Your task to perform on an android device: turn off javascript in the chrome app Image 0: 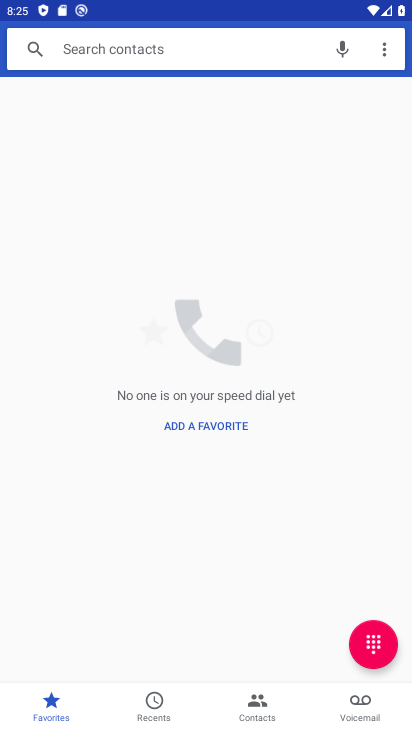
Step 0: press home button
Your task to perform on an android device: turn off javascript in the chrome app Image 1: 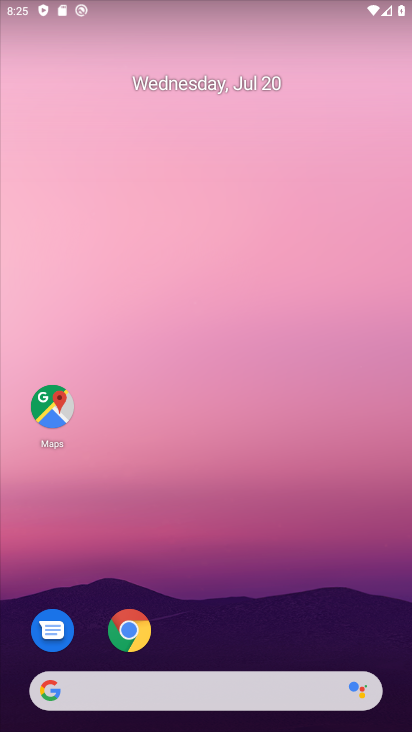
Step 1: click (137, 632)
Your task to perform on an android device: turn off javascript in the chrome app Image 2: 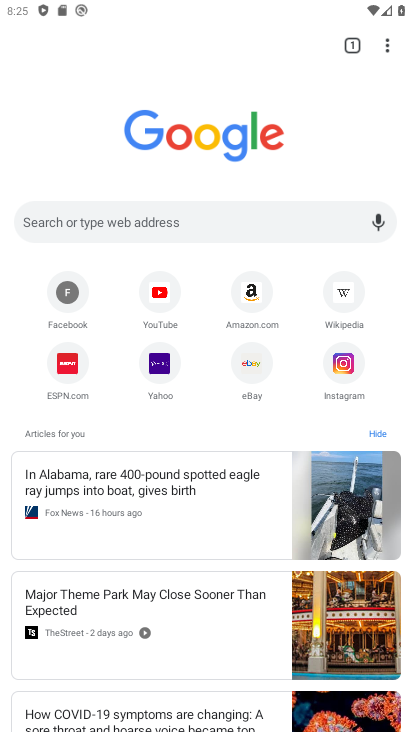
Step 2: click (392, 41)
Your task to perform on an android device: turn off javascript in the chrome app Image 3: 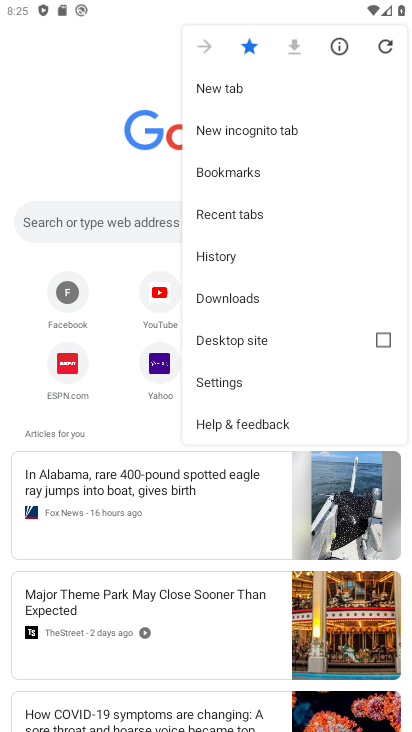
Step 3: click (254, 375)
Your task to perform on an android device: turn off javascript in the chrome app Image 4: 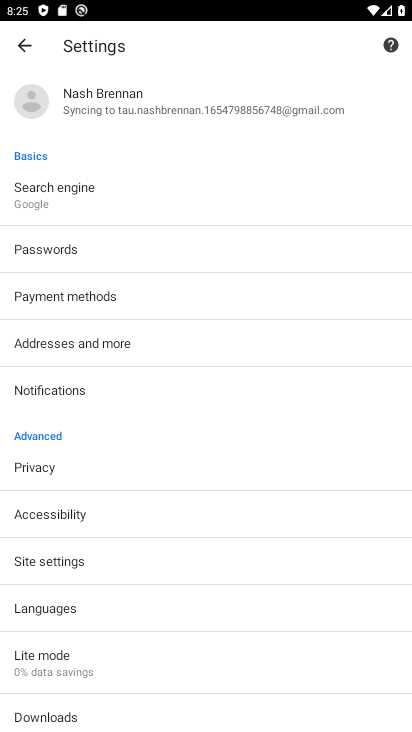
Step 4: click (170, 562)
Your task to perform on an android device: turn off javascript in the chrome app Image 5: 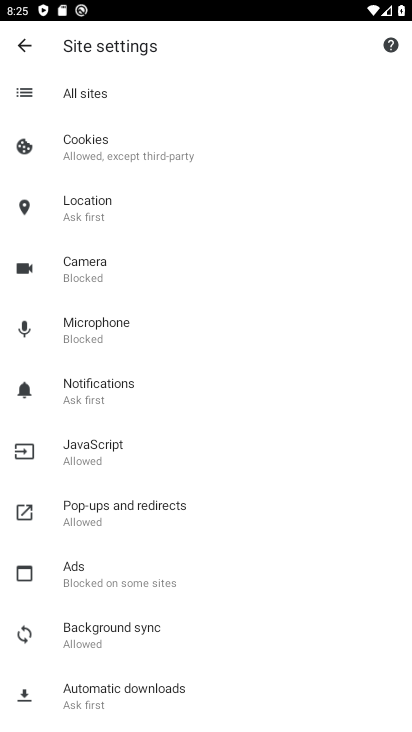
Step 5: click (204, 448)
Your task to perform on an android device: turn off javascript in the chrome app Image 6: 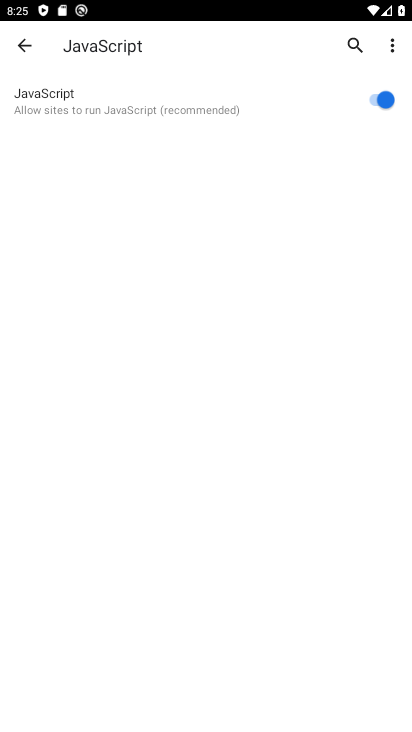
Step 6: click (372, 100)
Your task to perform on an android device: turn off javascript in the chrome app Image 7: 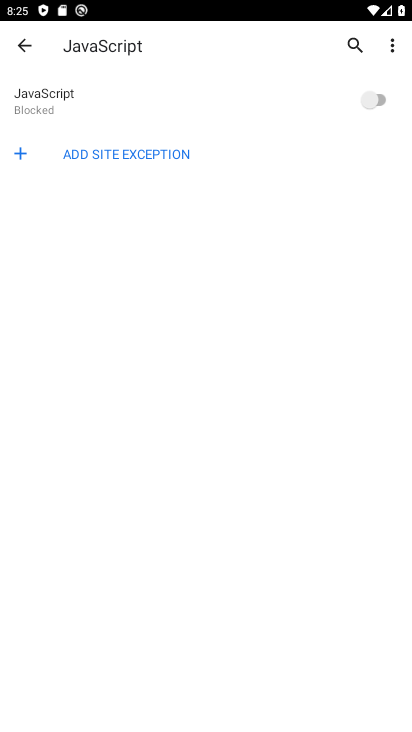
Step 7: task complete